Your task to perform on an android device: Search for pizza restaurants on Maps Image 0: 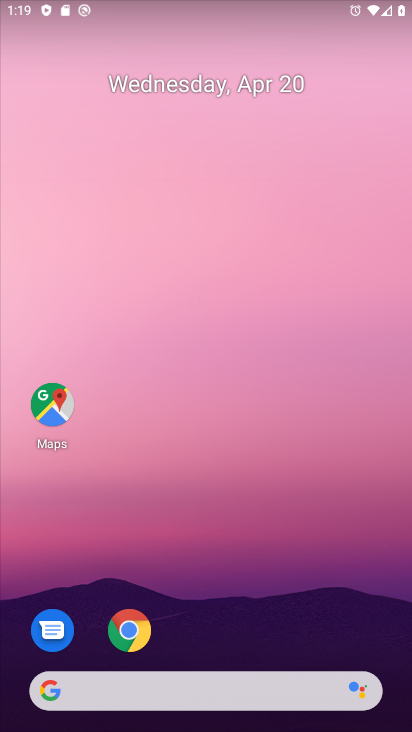
Step 0: click (45, 413)
Your task to perform on an android device: Search for pizza restaurants on Maps Image 1: 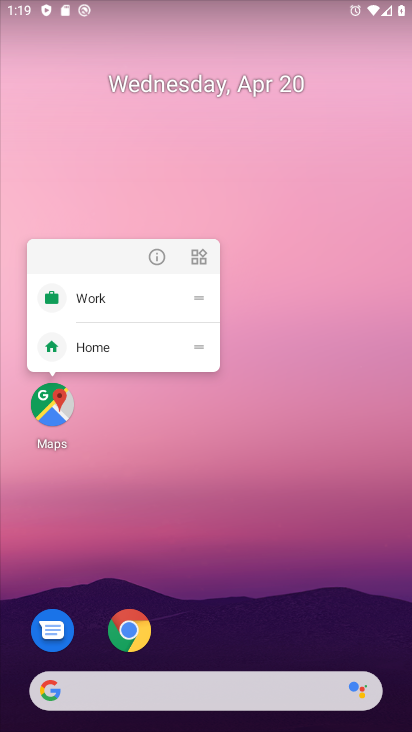
Step 1: click (45, 413)
Your task to perform on an android device: Search for pizza restaurants on Maps Image 2: 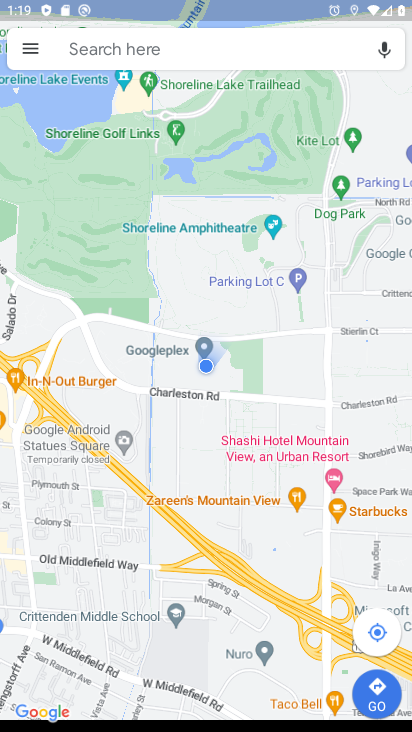
Step 2: click (165, 47)
Your task to perform on an android device: Search for pizza restaurants on Maps Image 3: 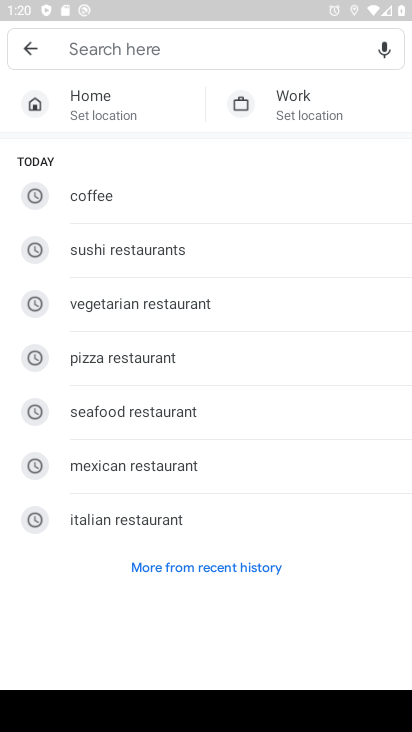
Step 3: click (110, 360)
Your task to perform on an android device: Search for pizza restaurants on Maps Image 4: 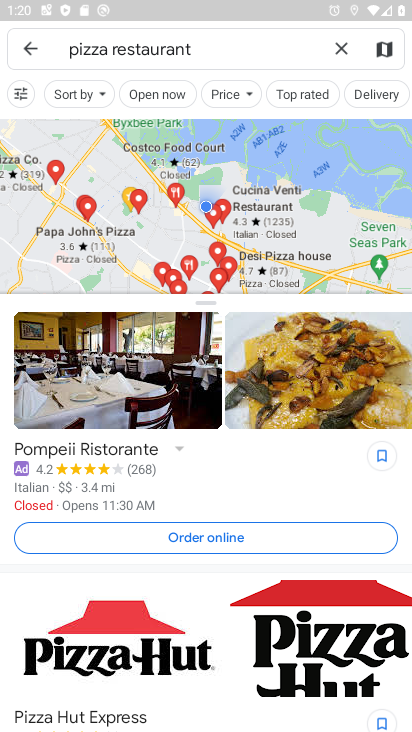
Step 4: task complete